Your task to perform on an android device: What is the recent news? Image 0: 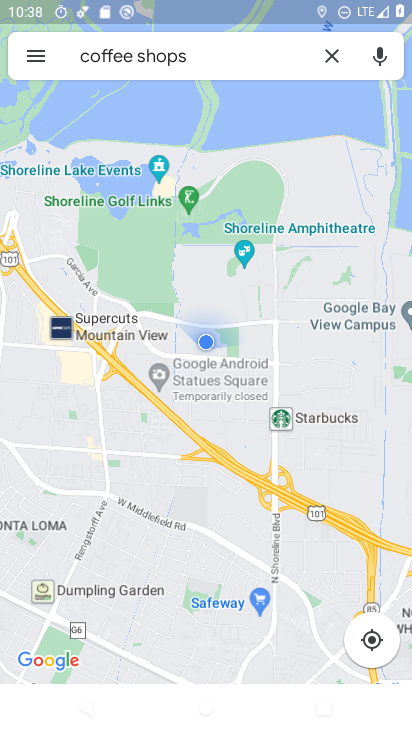
Step 0: press home button
Your task to perform on an android device: What is the recent news? Image 1: 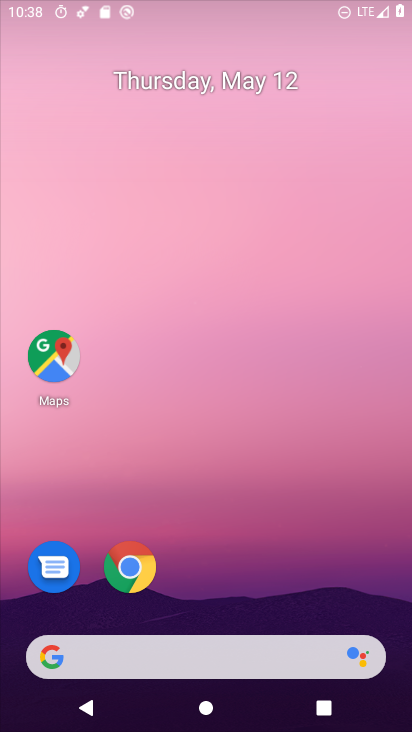
Step 1: drag from (256, 527) to (268, 206)
Your task to perform on an android device: What is the recent news? Image 2: 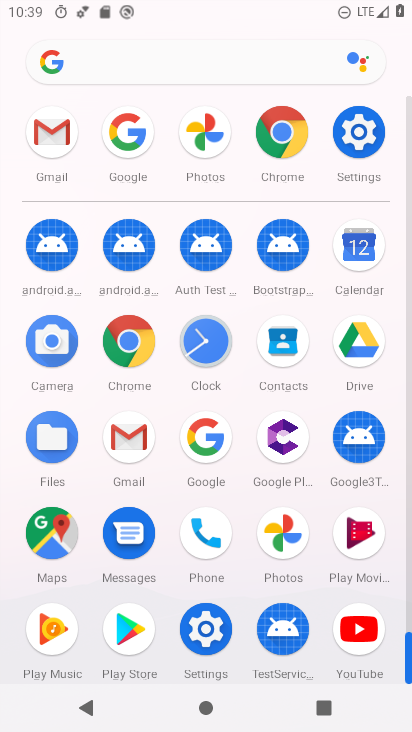
Step 2: click (222, 469)
Your task to perform on an android device: What is the recent news? Image 3: 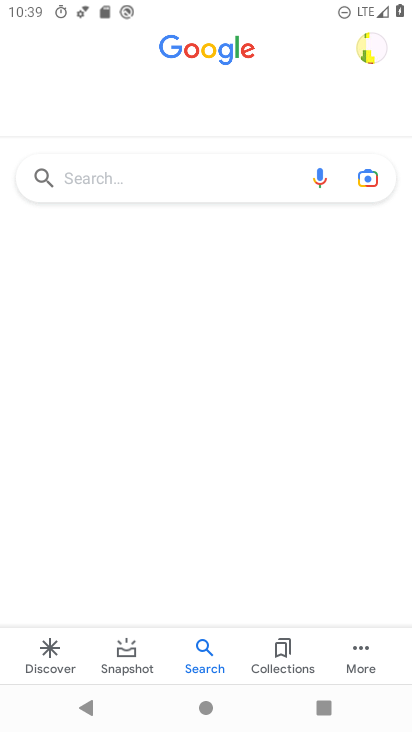
Step 3: click (133, 176)
Your task to perform on an android device: What is the recent news? Image 4: 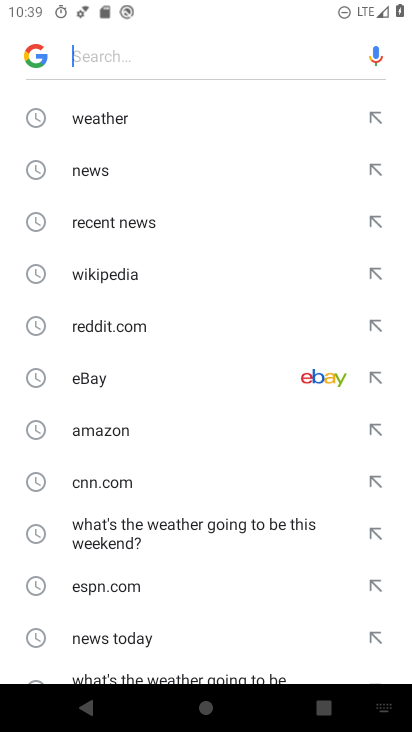
Step 4: click (134, 178)
Your task to perform on an android device: What is the recent news? Image 5: 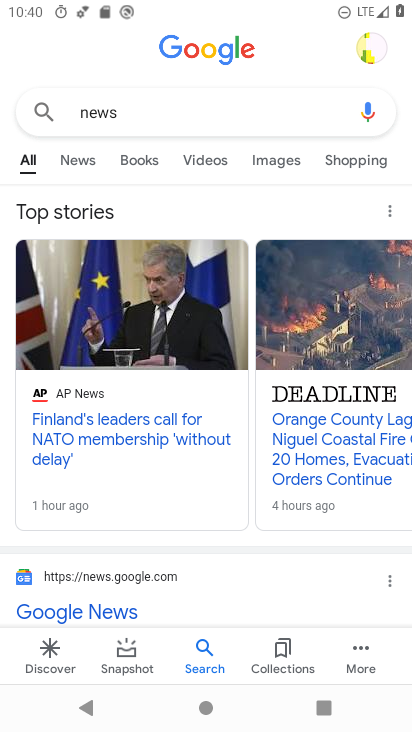
Step 5: click (60, 168)
Your task to perform on an android device: What is the recent news? Image 6: 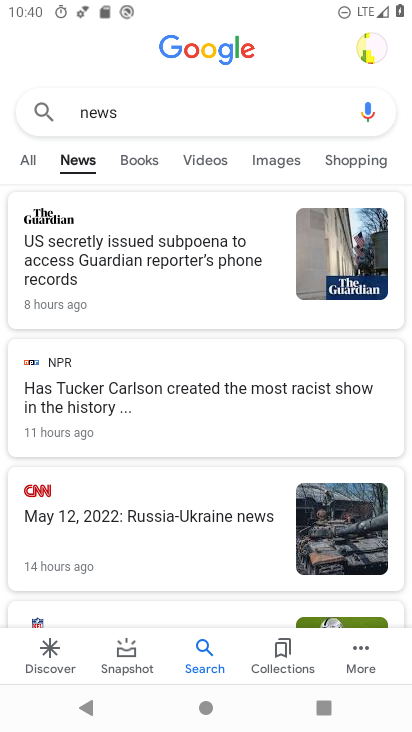
Step 6: task complete